Your task to perform on an android device: add a contact Image 0: 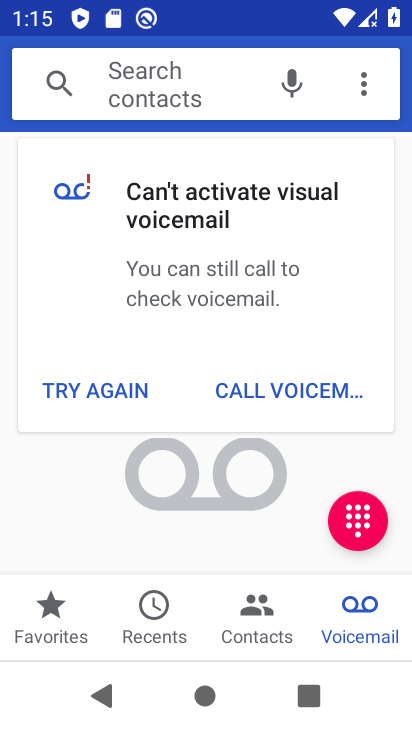
Step 0: press home button
Your task to perform on an android device: add a contact Image 1: 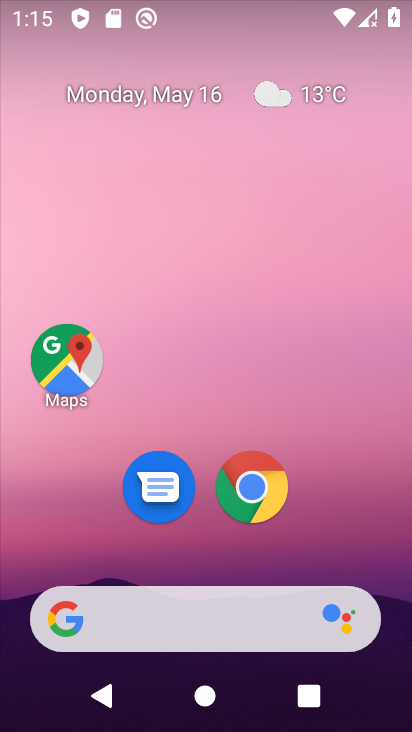
Step 1: drag from (368, 449) to (322, 185)
Your task to perform on an android device: add a contact Image 2: 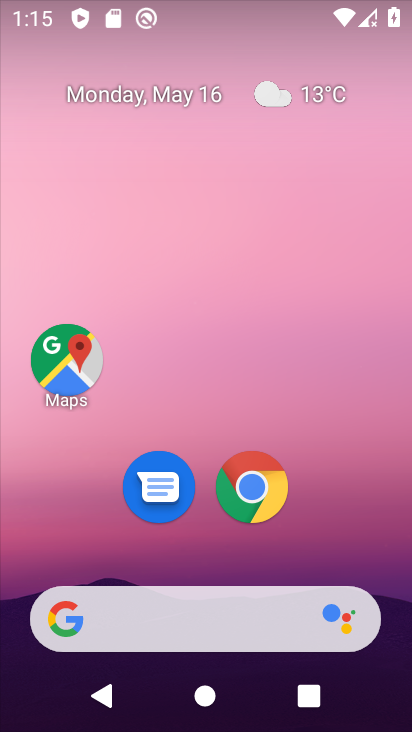
Step 2: drag from (386, 617) to (337, 194)
Your task to perform on an android device: add a contact Image 3: 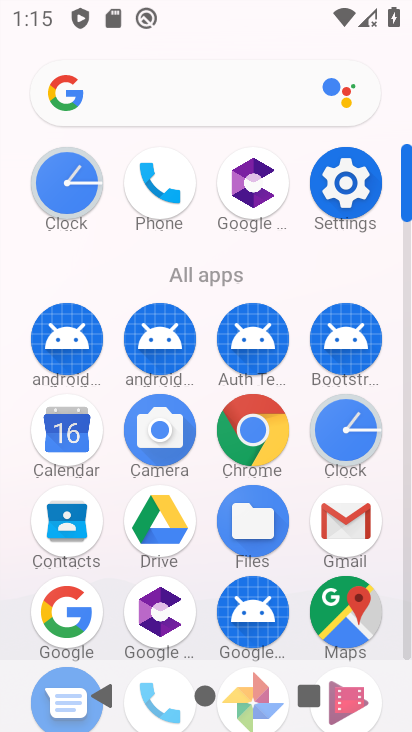
Step 3: click (62, 523)
Your task to perform on an android device: add a contact Image 4: 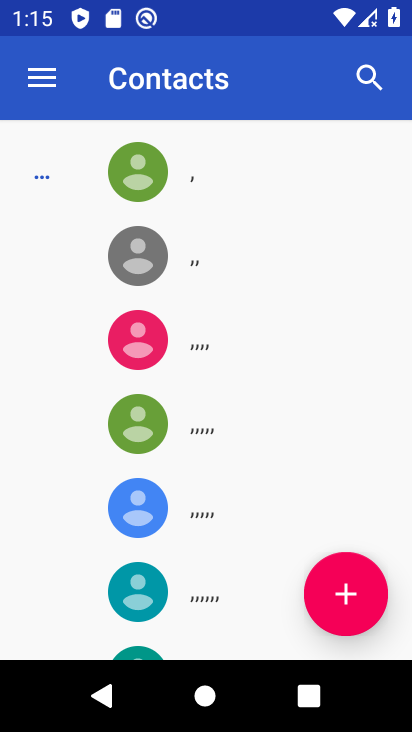
Step 4: click (350, 588)
Your task to perform on an android device: add a contact Image 5: 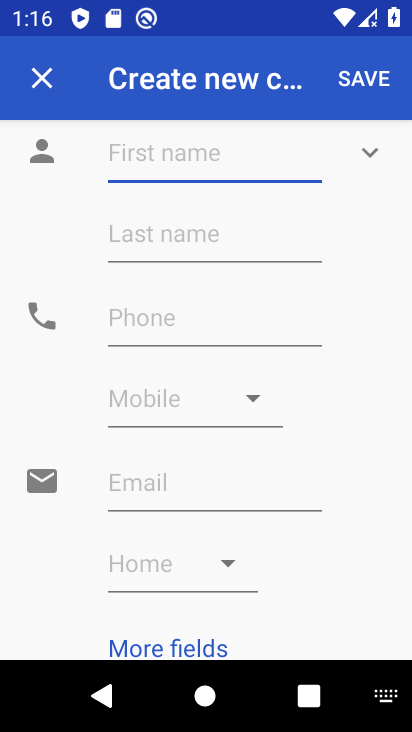
Step 5: type "xtcyvghbnj"
Your task to perform on an android device: add a contact Image 6: 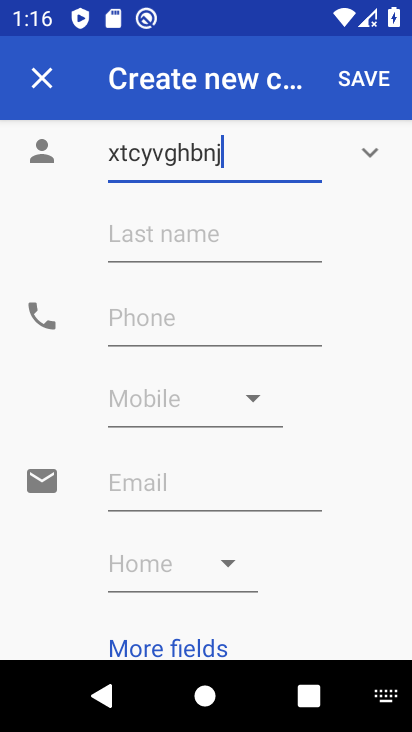
Step 6: click (179, 224)
Your task to perform on an android device: add a contact Image 7: 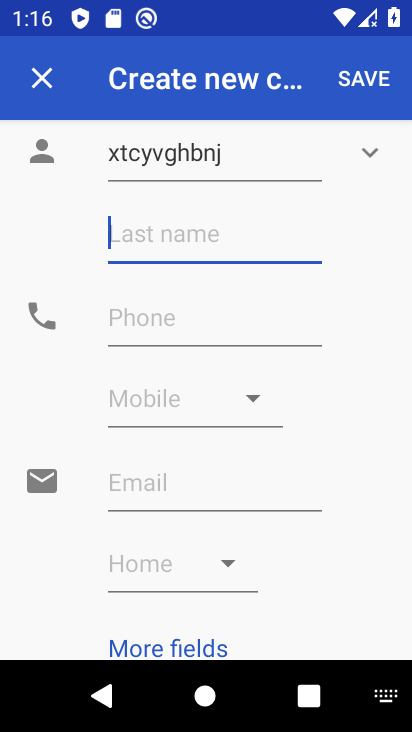
Step 7: type "tghnnbvcxz"
Your task to perform on an android device: add a contact Image 8: 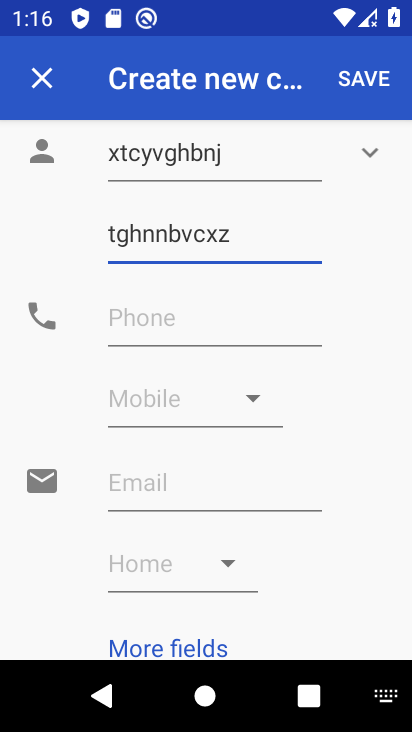
Step 8: click (154, 307)
Your task to perform on an android device: add a contact Image 9: 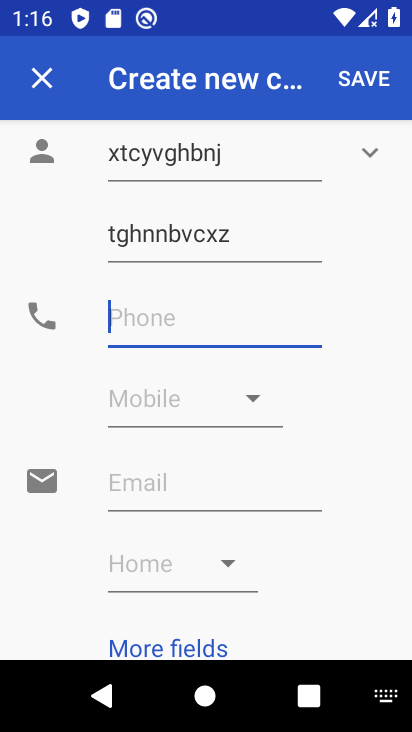
Step 9: type "2345678765432"
Your task to perform on an android device: add a contact Image 10: 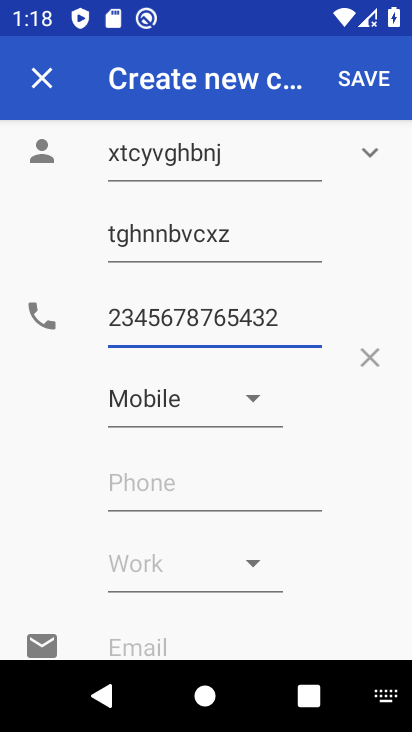
Step 10: click (365, 78)
Your task to perform on an android device: add a contact Image 11: 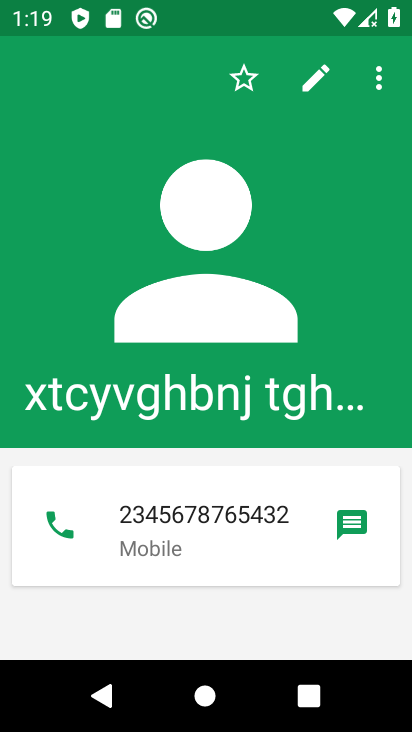
Step 11: press home button
Your task to perform on an android device: add a contact Image 12: 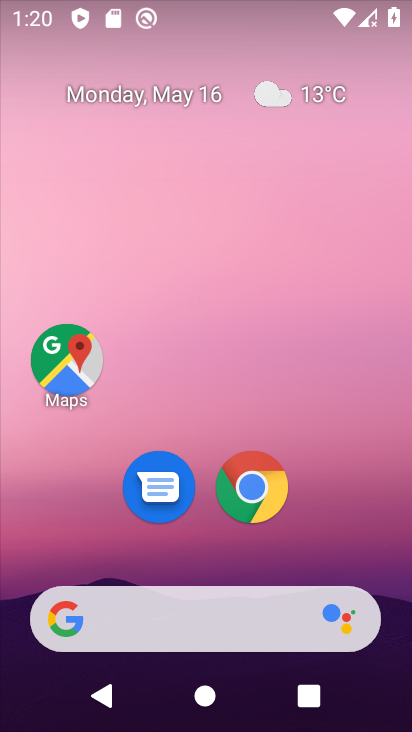
Step 12: drag from (398, 605) to (395, 208)
Your task to perform on an android device: add a contact Image 13: 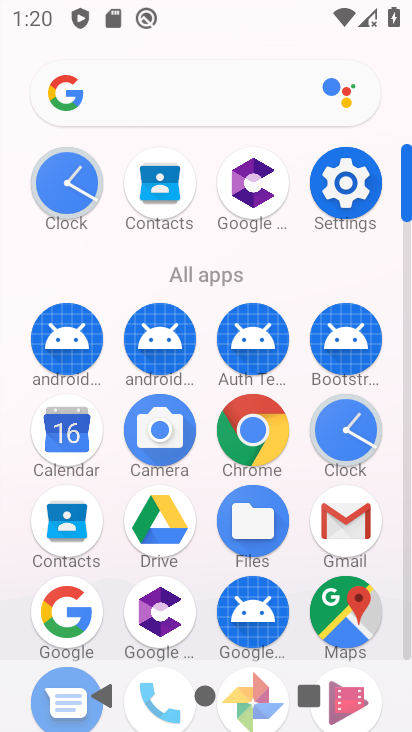
Step 13: click (76, 541)
Your task to perform on an android device: add a contact Image 14: 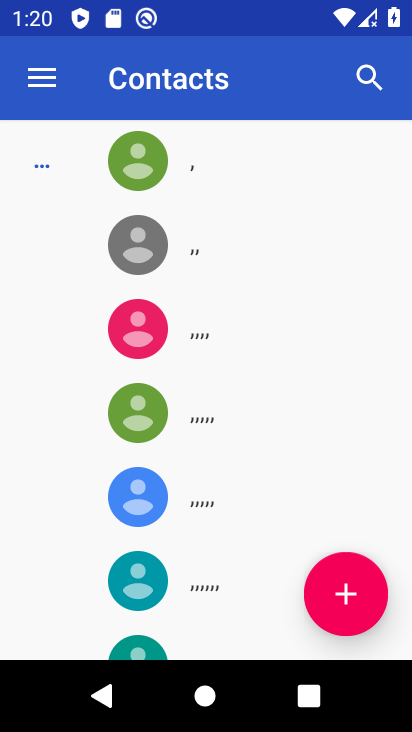
Step 14: click (329, 601)
Your task to perform on an android device: add a contact Image 15: 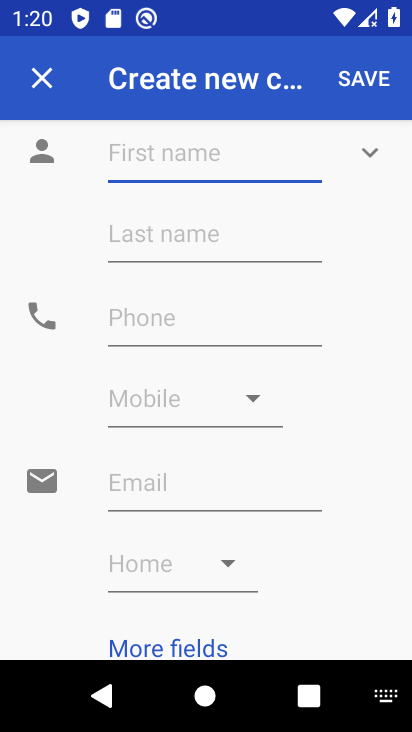
Step 15: type "gjhfdf"
Your task to perform on an android device: add a contact Image 16: 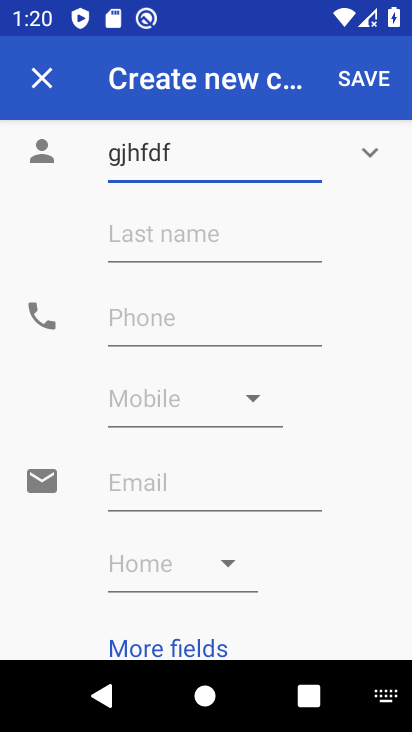
Step 16: click (179, 233)
Your task to perform on an android device: add a contact Image 17: 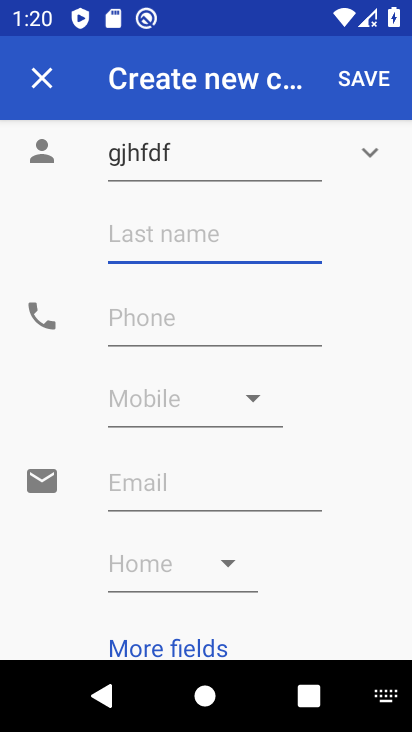
Step 17: type "xxtvhgyt"
Your task to perform on an android device: add a contact Image 18: 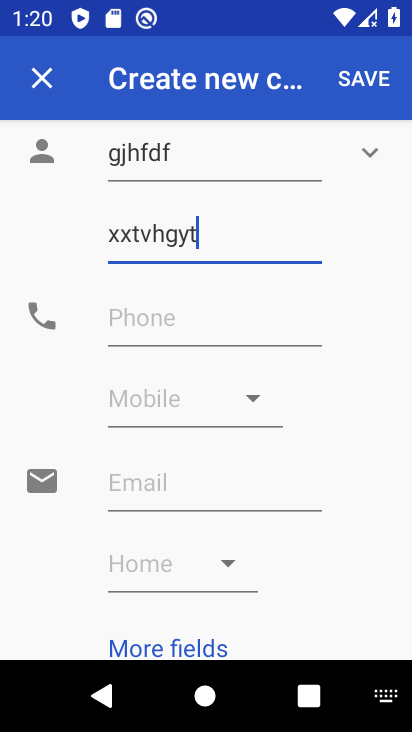
Step 18: click (249, 339)
Your task to perform on an android device: add a contact Image 19: 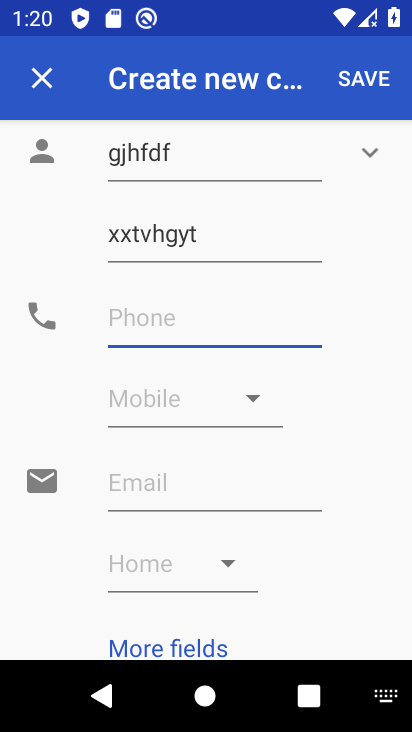
Step 19: type "767545343"
Your task to perform on an android device: add a contact Image 20: 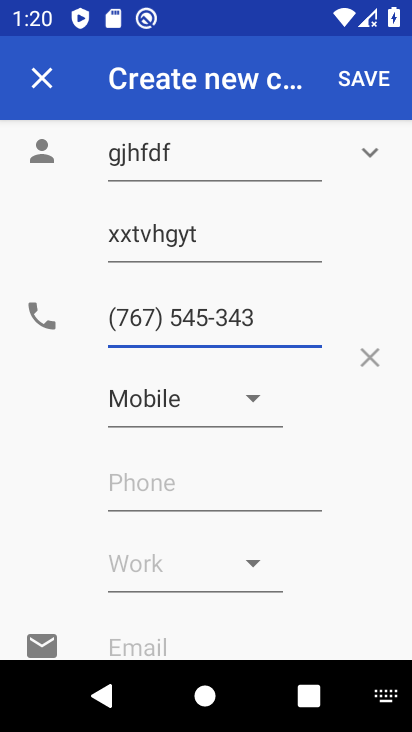
Step 20: click (365, 75)
Your task to perform on an android device: add a contact Image 21: 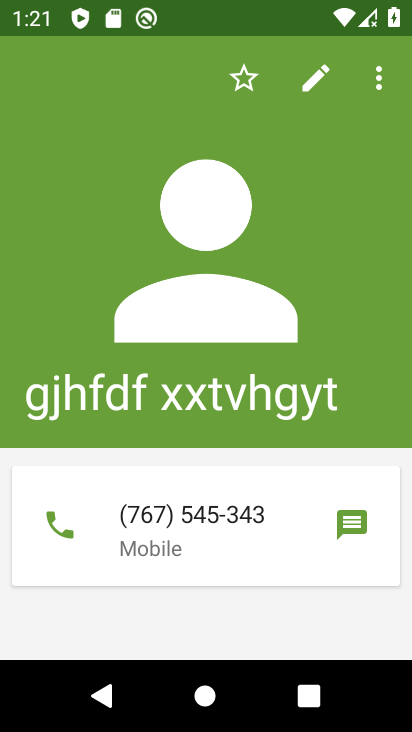
Step 21: task complete